Your task to perform on an android device: Search for vegetarian restaurants on Maps Image 0: 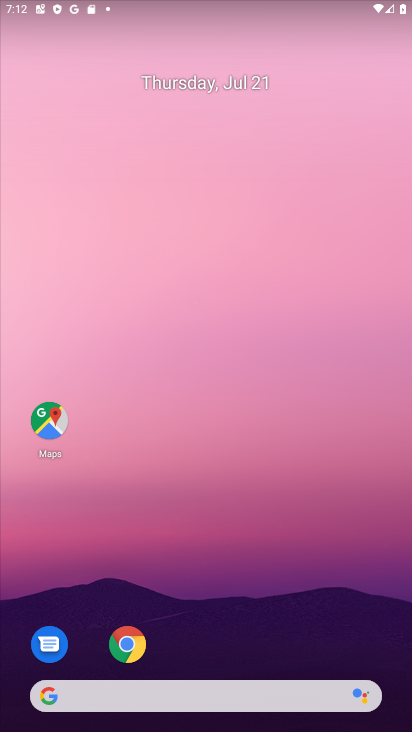
Step 0: click (48, 417)
Your task to perform on an android device: Search for vegetarian restaurants on Maps Image 1: 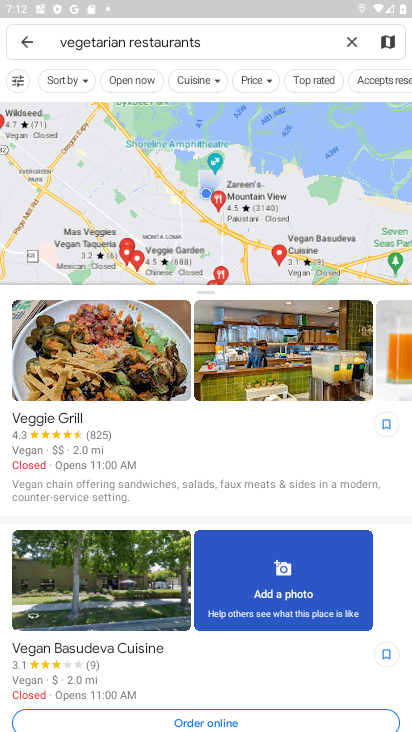
Step 1: task complete